Your task to perform on an android device: toggle pop-ups in chrome Image 0: 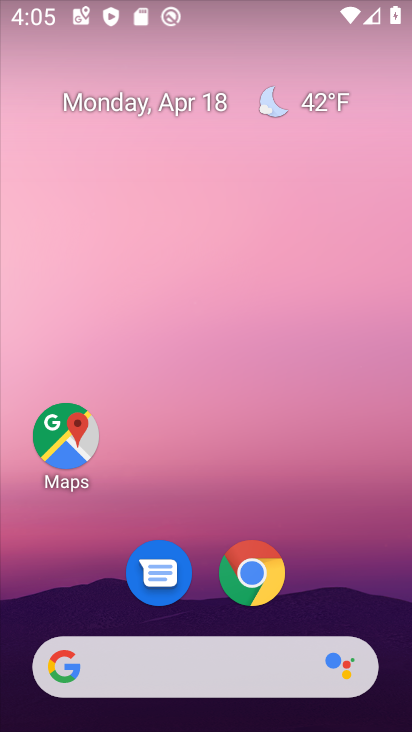
Step 0: click (248, 572)
Your task to perform on an android device: toggle pop-ups in chrome Image 1: 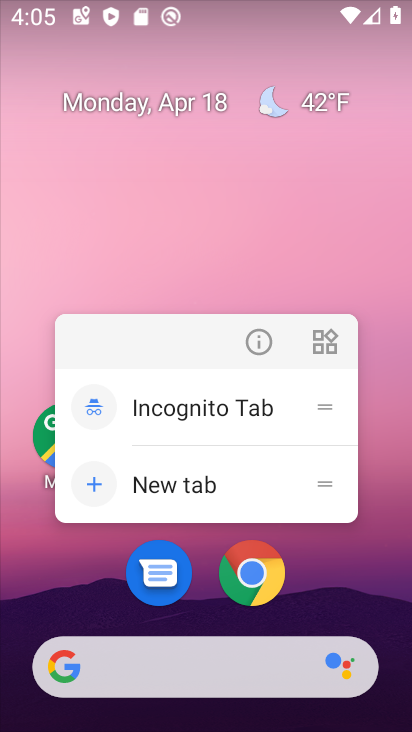
Step 1: click (248, 572)
Your task to perform on an android device: toggle pop-ups in chrome Image 2: 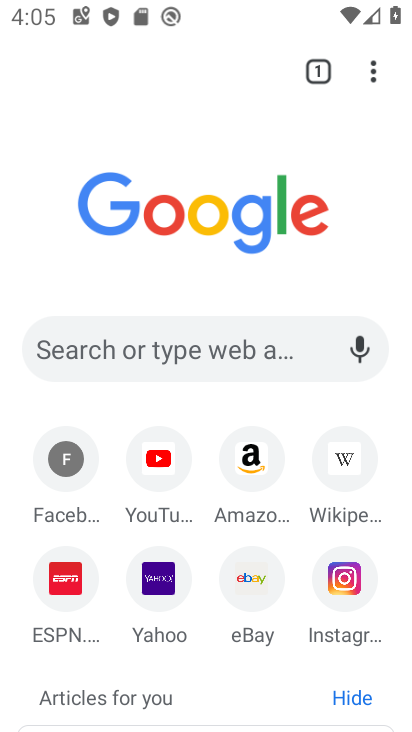
Step 2: click (376, 74)
Your task to perform on an android device: toggle pop-ups in chrome Image 3: 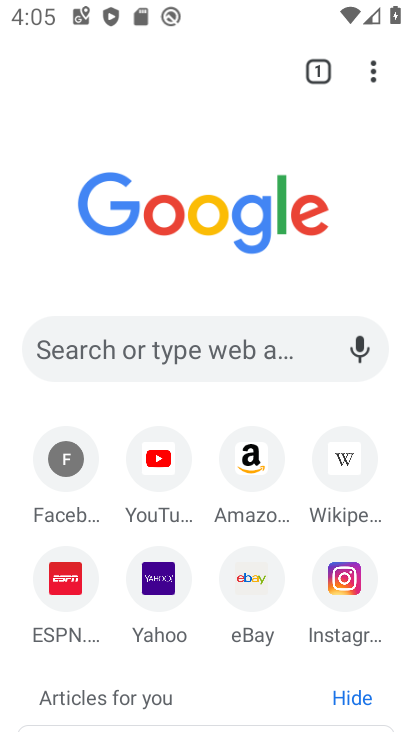
Step 3: click (376, 74)
Your task to perform on an android device: toggle pop-ups in chrome Image 4: 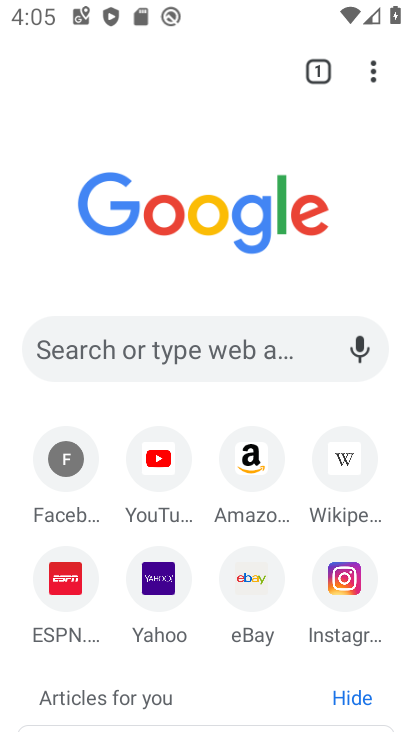
Step 4: click (376, 74)
Your task to perform on an android device: toggle pop-ups in chrome Image 5: 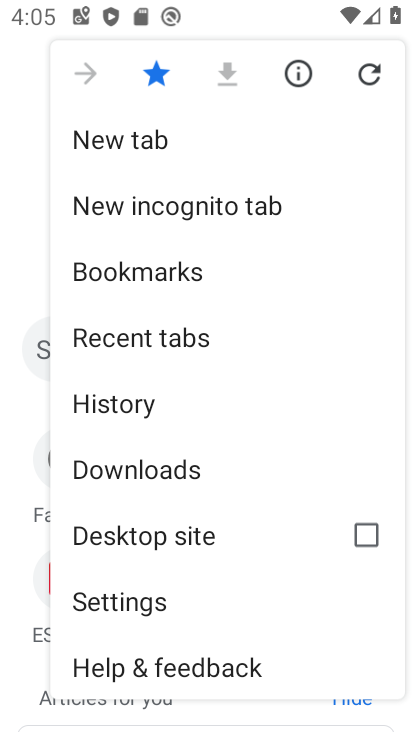
Step 5: click (145, 609)
Your task to perform on an android device: toggle pop-ups in chrome Image 6: 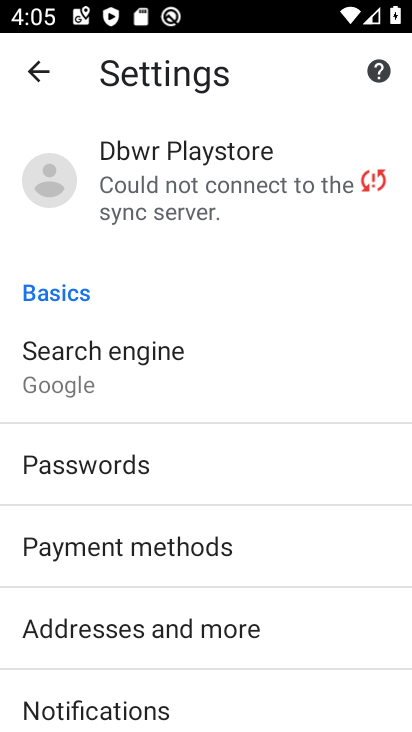
Step 6: drag from (135, 645) to (111, 341)
Your task to perform on an android device: toggle pop-ups in chrome Image 7: 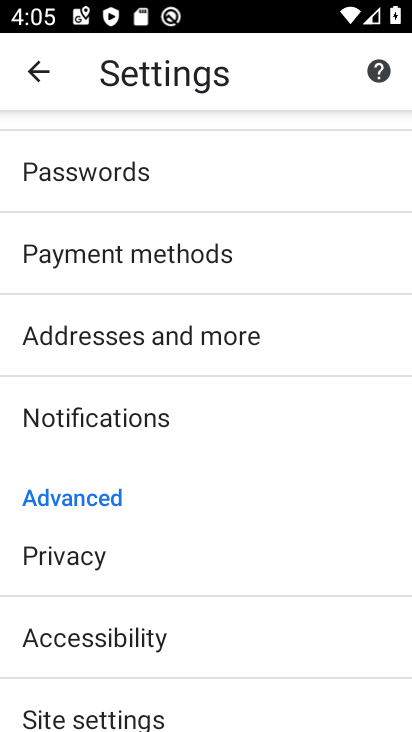
Step 7: drag from (156, 697) to (143, 364)
Your task to perform on an android device: toggle pop-ups in chrome Image 8: 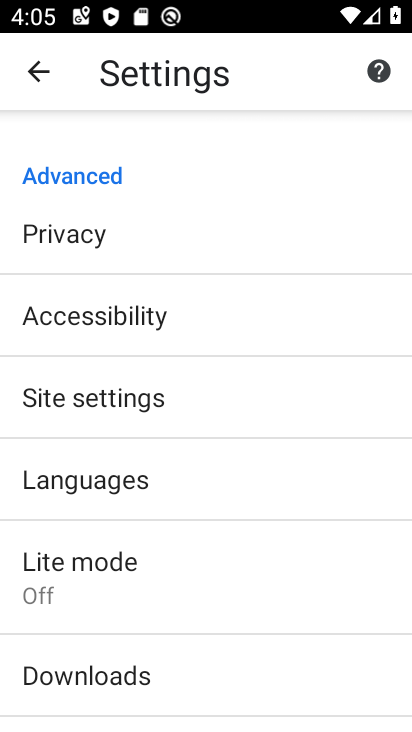
Step 8: click (94, 330)
Your task to perform on an android device: toggle pop-ups in chrome Image 9: 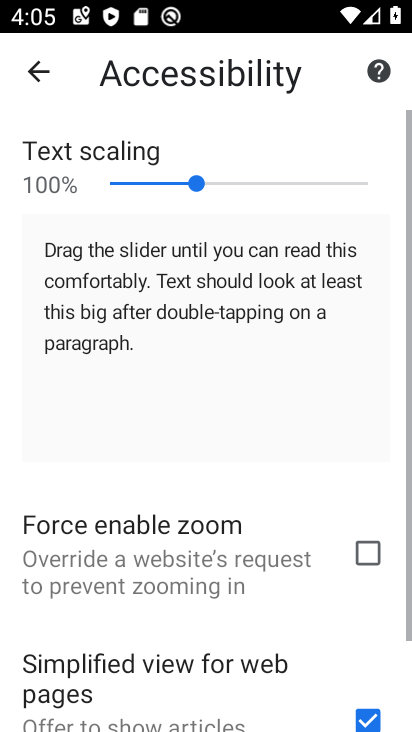
Step 9: click (85, 406)
Your task to perform on an android device: toggle pop-ups in chrome Image 10: 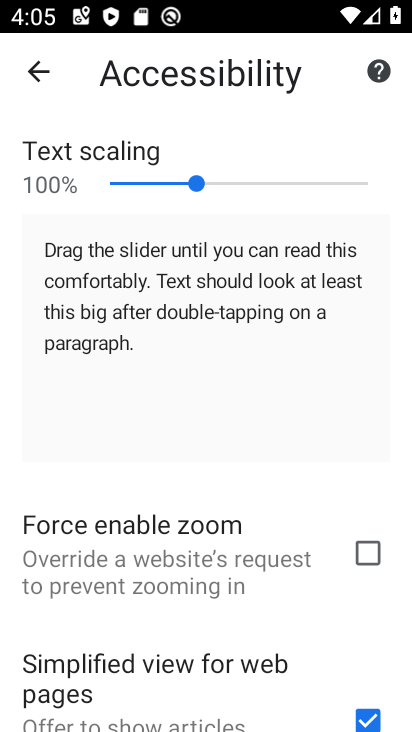
Step 10: click (26, 63)
Your task to perform on an android device: toggle pop-ups in chrome Image 11: 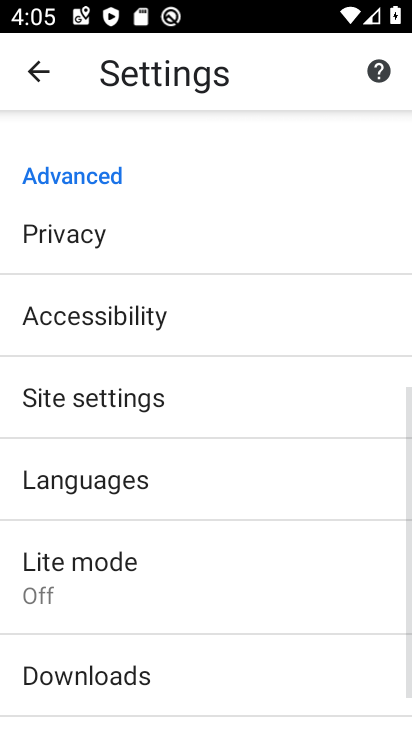
Step 11: click (76, 389)
Your task to perform on an android device: toggle pop-ups in chrome Image 12: 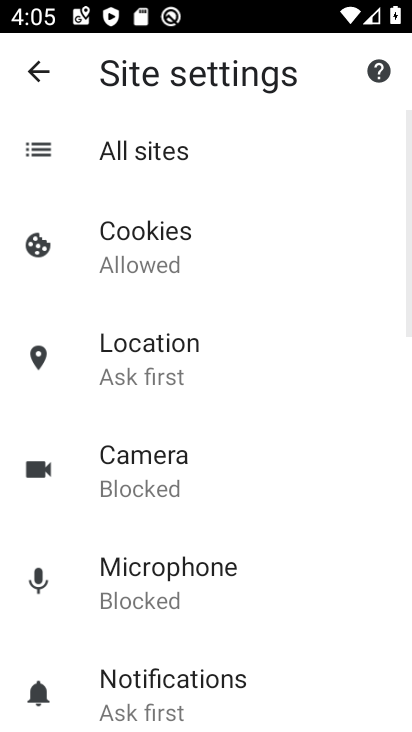
Step 12: drag from (196, 687) to (187, 281)
Your task to perform on an android device: toggle pop-ups in chrome Image 13: 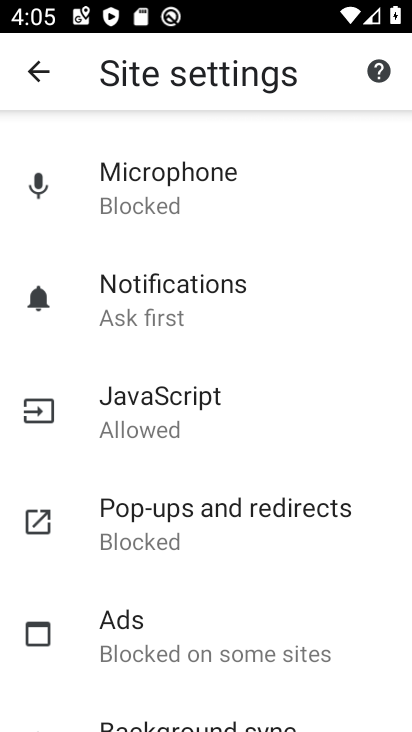
Step 13: click (164, 521)
Your task to perform on an android device: toggle pop-ups in chrome Image 14: 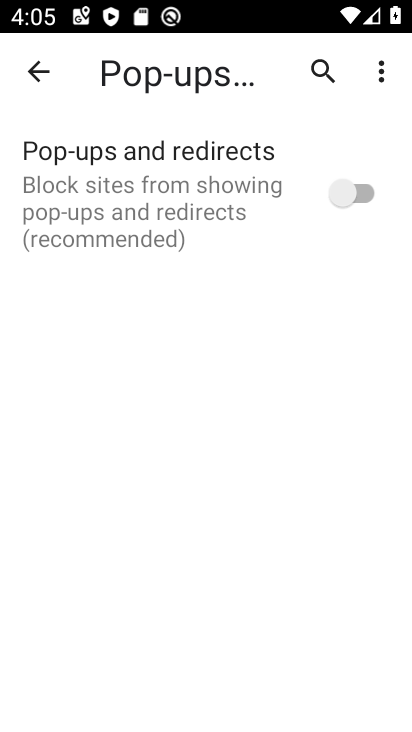
Step 14: click (359, 190)
Your task to perform on an android device: toggle pop-ups in chrome Image 15: 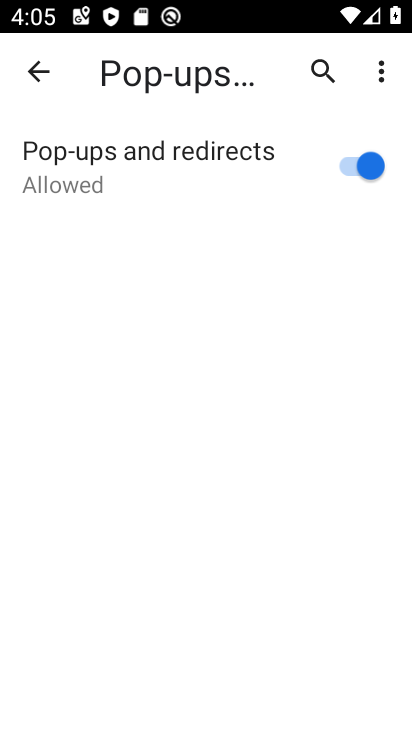
Step 15: task complete